Your task to perform on an android device: set an alarm Image 0: 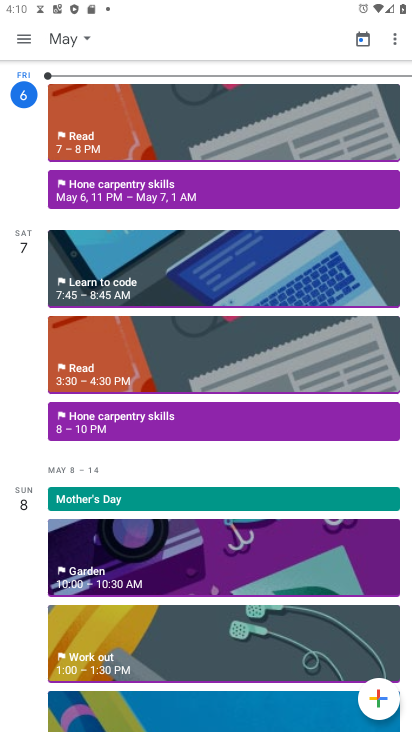
Step 0: press home button
Your task to perform on an android device: set an alarm Image 1: 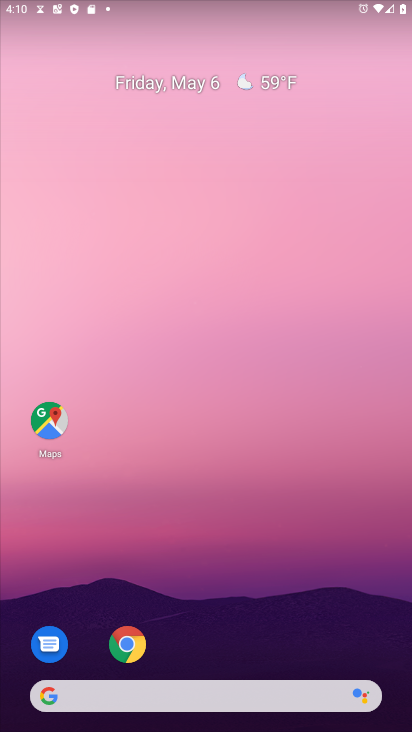
Step 1: drag from (194, 605) to (187, 94)
Your task to perform on an android device: set an alarm Image 2: 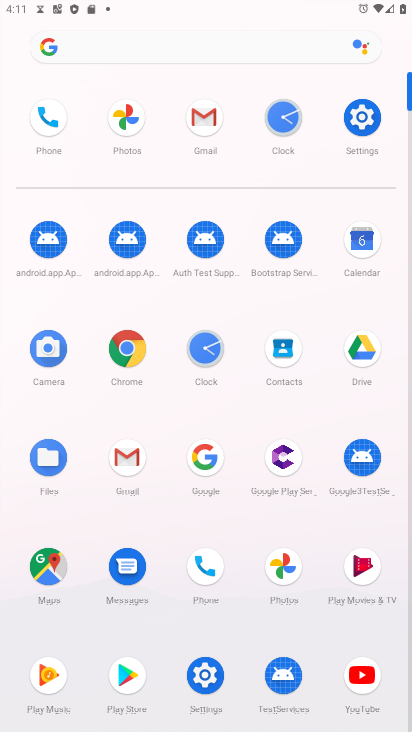
Step 2: click (285, 120)
Your task to perform on an android device: set an alarm Image 3: 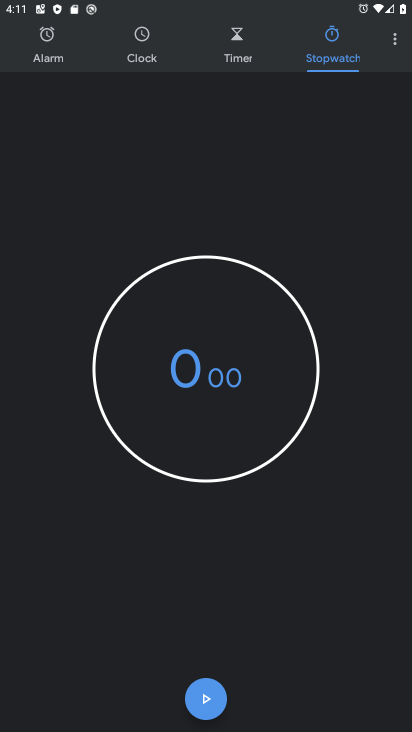
Step 3: click (44, 32)
Your task to perform on an android device: set an alarm Image 4: 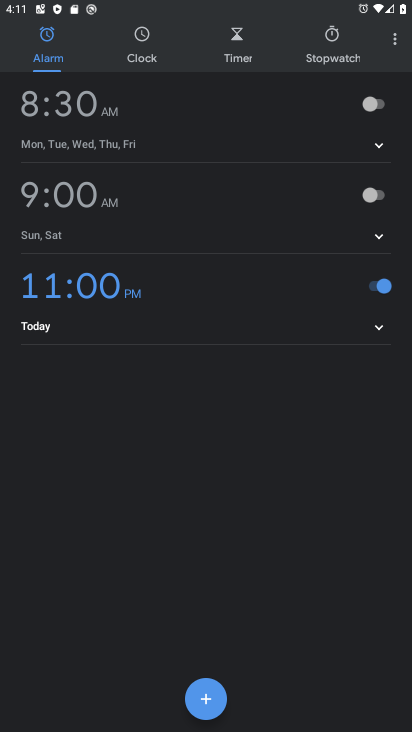
Step 4: click (206, 705)
Your task to perform on an android device: set an alarm Image 5: 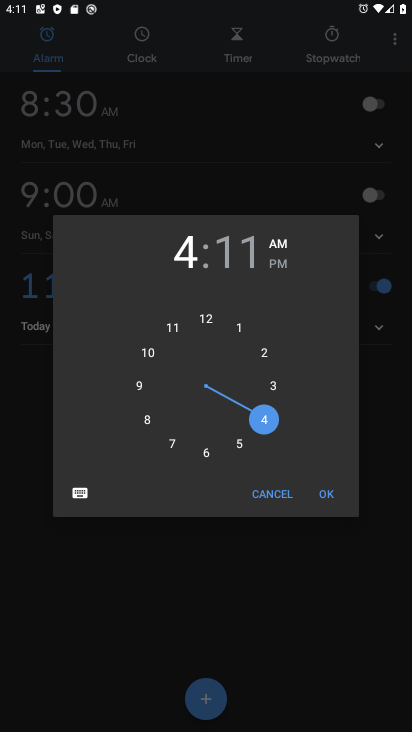
Step 5: drag from (255, 418) to (238, 327)
Your task to perform on an android device: set an alarm Image 6: 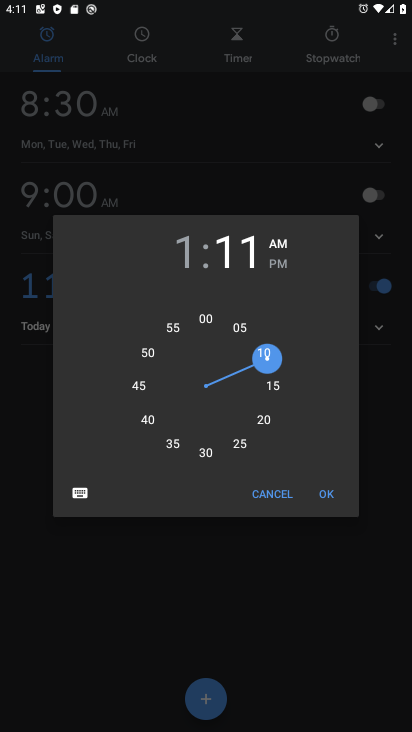
Step 6: click (198, 459)
Your task to perform on an android device: set an alarm Image 7: 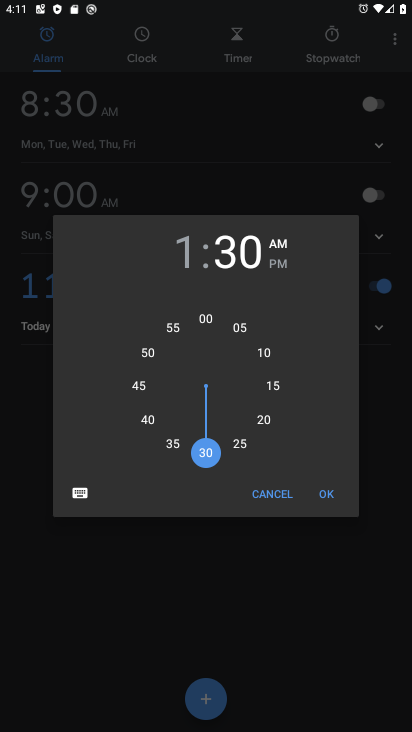
Step 7: click (329, 492)
Your task to perform on an android device: set an alarm Image 8: 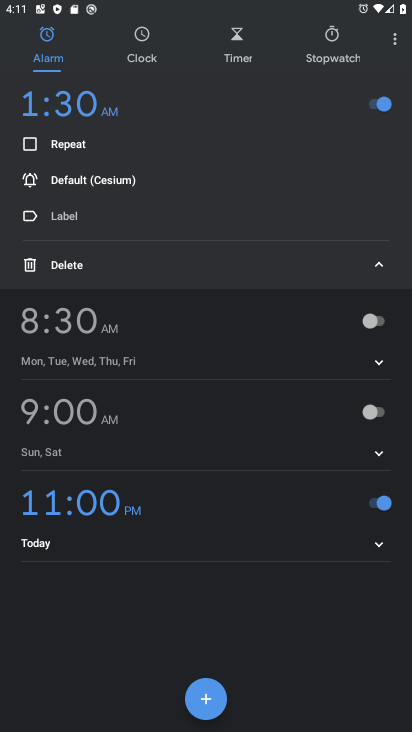
Step 8: click (381, 270)
Your task to perform on an android device: set an alarm Image 9: 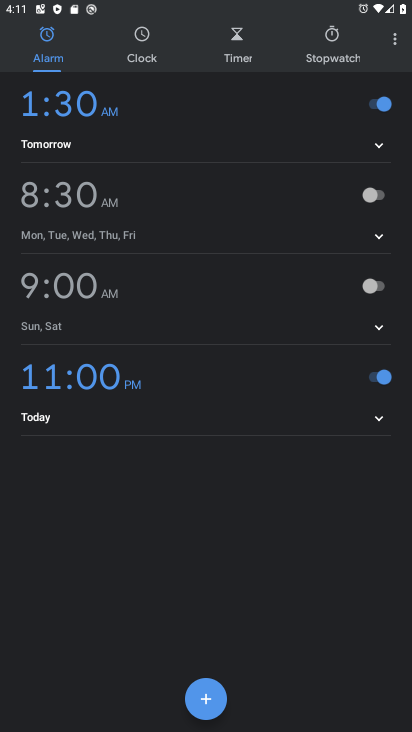
Step 9: task complete